Your task to perform on an android device: toggle location history Image 0: 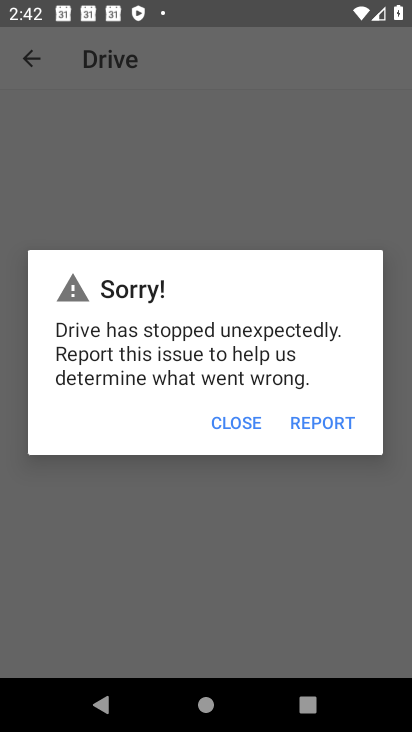
Step 0: press home button
Your task to perform on an android device: toggle location history Image 1: 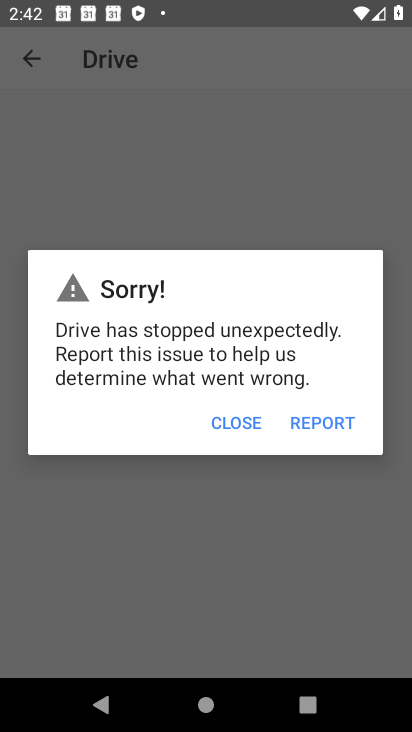
Step 1: drag from (290, 453) to (311, 275)
Your task to perform on an android device: toggle location history Image 2: 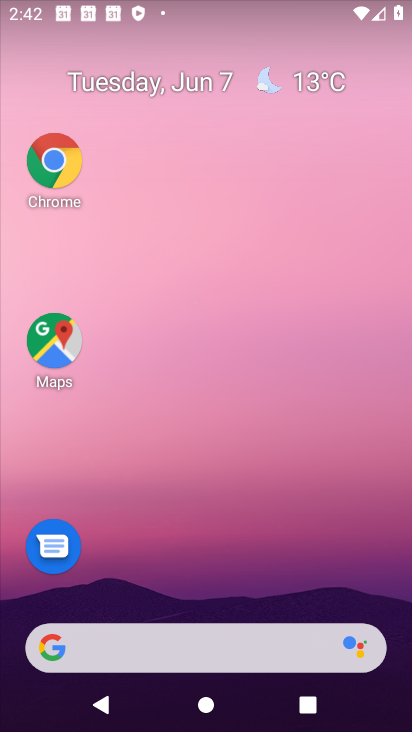
Step 2: drag from (197, 559) to (284, 113)
Your task to perform on an android device: toggle location history Image 3: 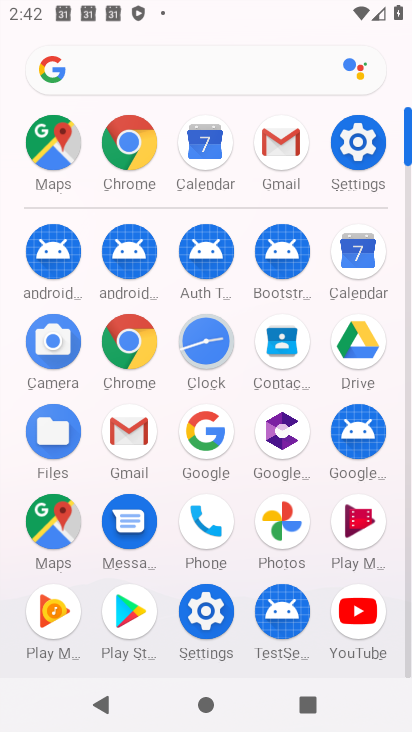
Step 3: click (354, 132)
Your task to perform on an android device: toggle location history Image 4: 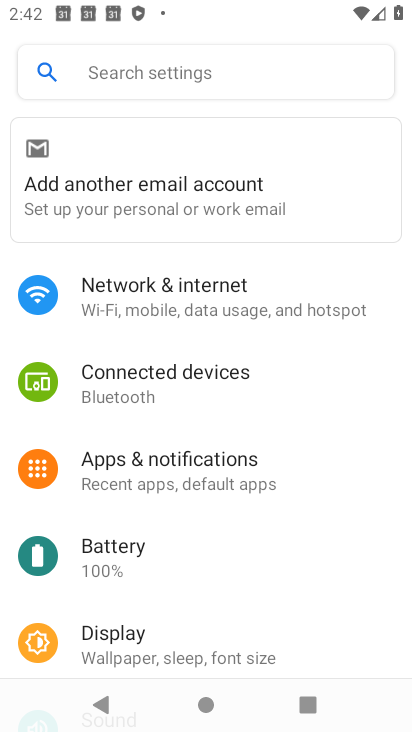
Step 4: drag from (136, 550) to (215, 255)
Your task to perform on an android device: toggle location history Image 5: 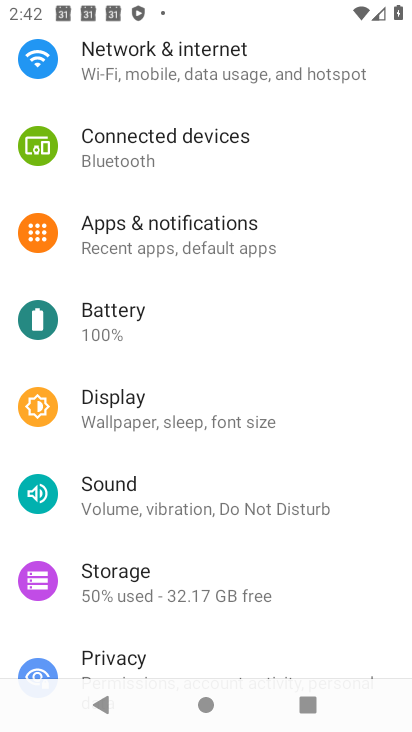
Step 5: drag from (160, 635) to (236, 255)
Your task to perform on an android device: toggle location history Image 6: 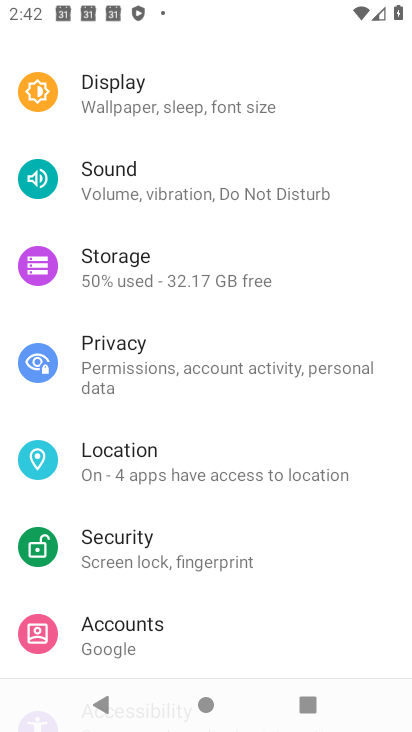
Step 6: click (134, 468)
Your task to perform on an android device: toggle location history Image 7: 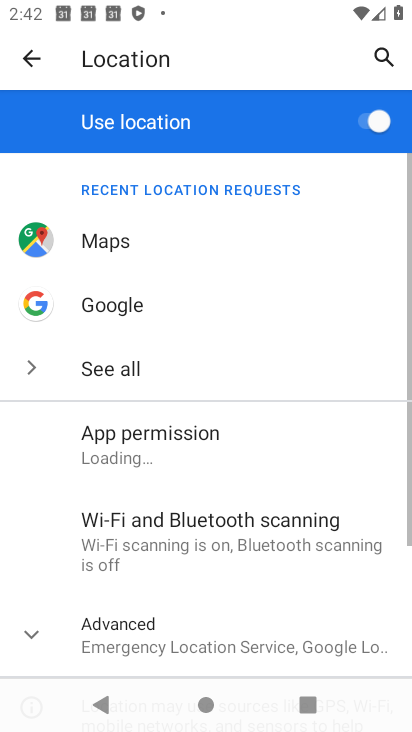
Step 7: drag from (241, 510) to (283, 294)
Your task to perform on an android device: toggle location history Image 8: 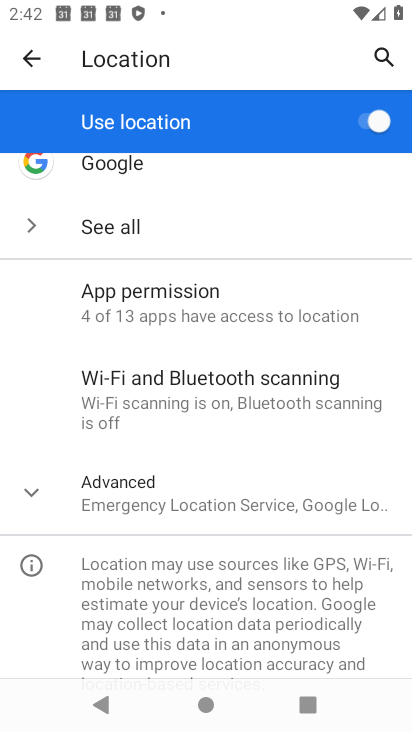
Step 8: click (137, 486)
Your task to perform on an android device: toggle location history Image 9: 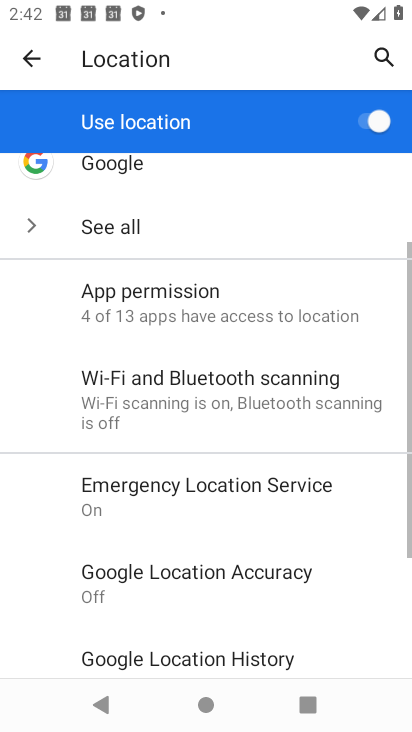
Step 9: drag from (169, 494) to (252, 209)
Your task to perform on an android device: toggle location history Image 10: 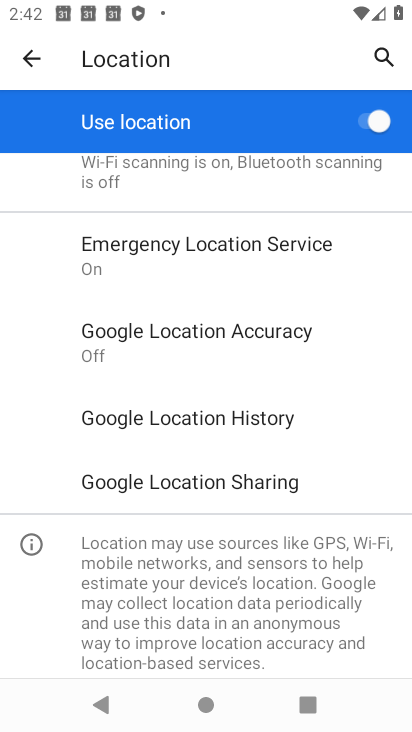
Step 10: click (198, 406)
Your task to perform on an android device: toggle location history Image 11: 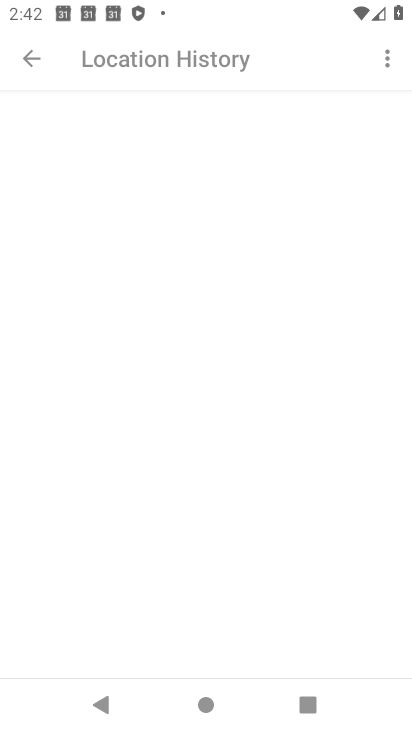
Step 11: drag from (229, 479) to (273, 310)
Your task to perform on an android device: toggle location history Image 12: 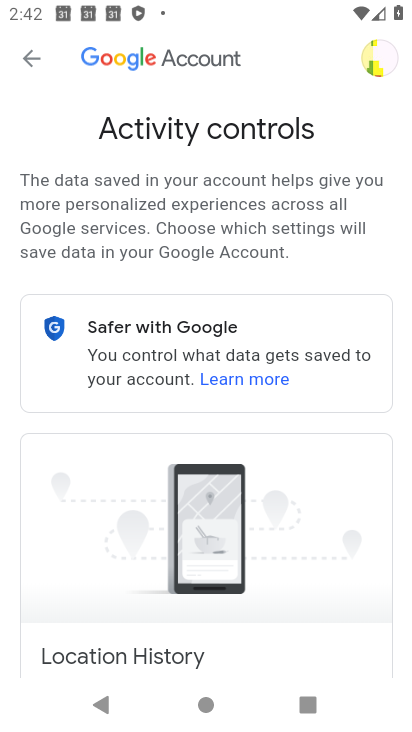
Step 12: drag from (238, 530) to (339, 67)
Your task to perform on an android device: toggle location history Image 13: 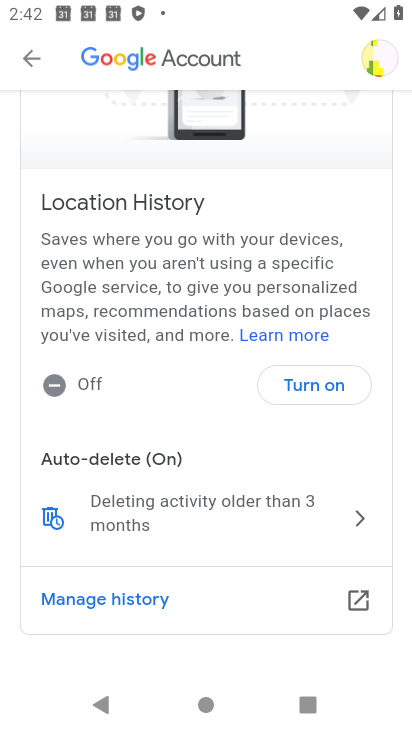
Step 13: click (303, 381)
Your task to perform on an android device: toggle location history Image 14: 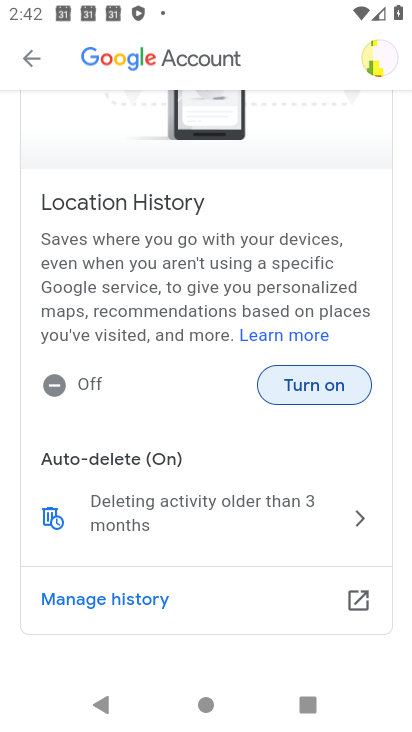
Step 14: drag from (243, 448) to (345, 147)
Your task to perform on an android device: toggle location history Image 15: 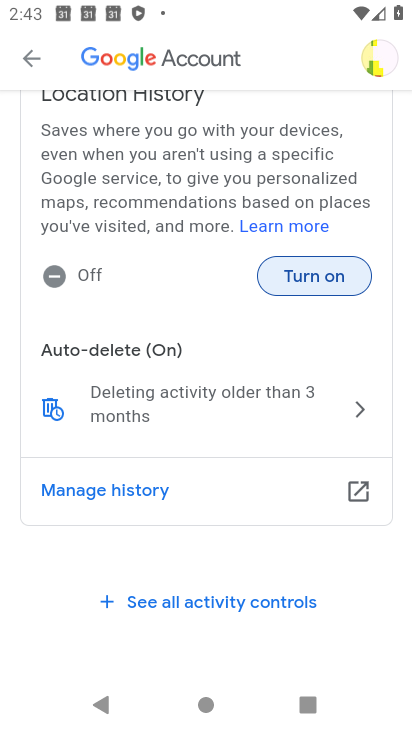
Step 15: drag from (202, 527) to (262, 232)
Your task to perform on an android device: toggle location history Image 16: 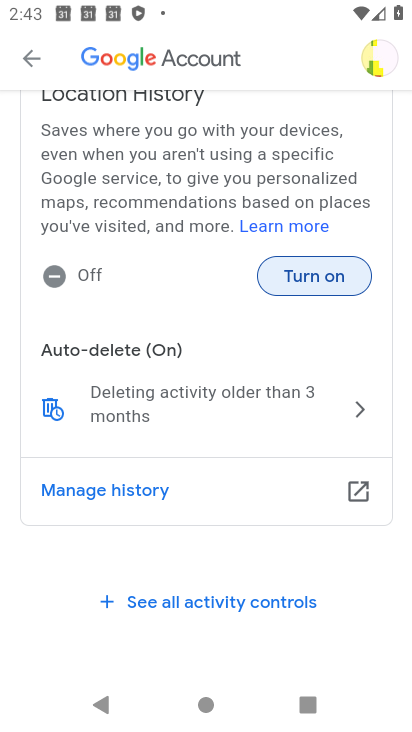
Step 16: drag from (246, 214) to (293, 730)
Your task to perform on an android device: toggle location history Image 17: 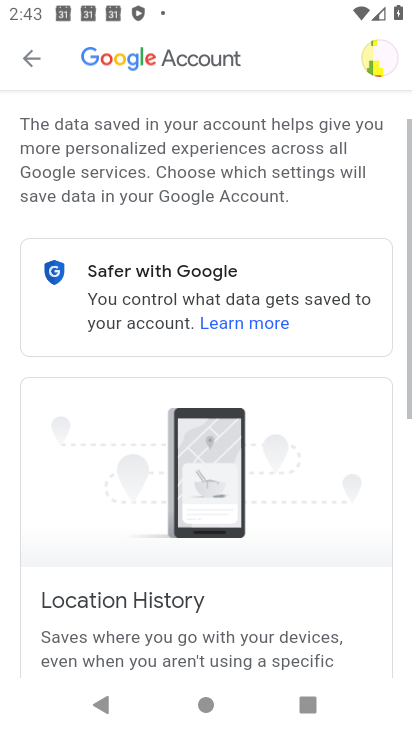
Step 17: drag from (345, 373) to (350, 205)
Your task to perform on an android device: toggle location history Image 18: 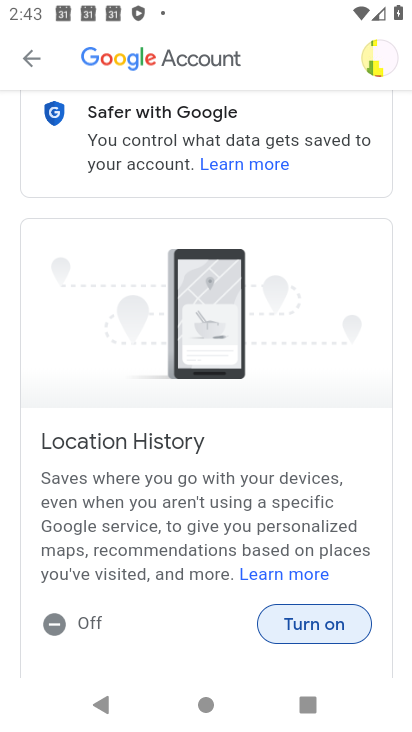
Step 18: click (322, 605)
Your task to perform on an android device: toggle location history Image 19: 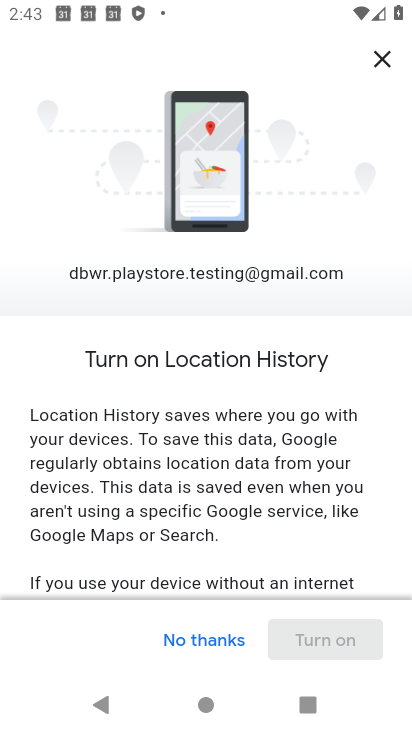
Step 19: drag from (310, 485) to (376, 65)
Your task to perform on an android device: toggle location history Image 20: 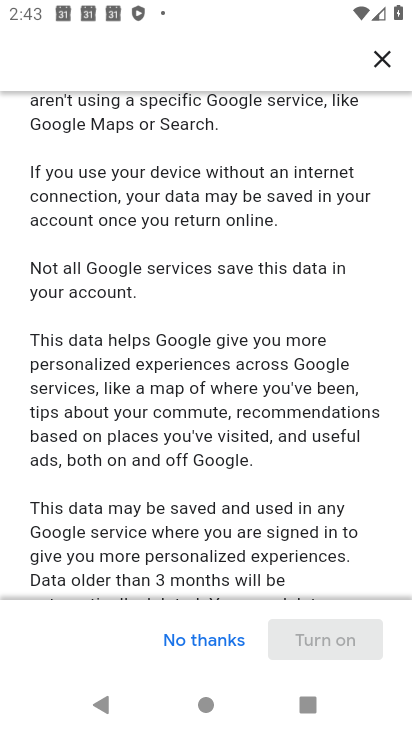
Step 20: drag from (246, 562) to (411, 66)
Your task to perform on an android device: toggle location history Image 21: 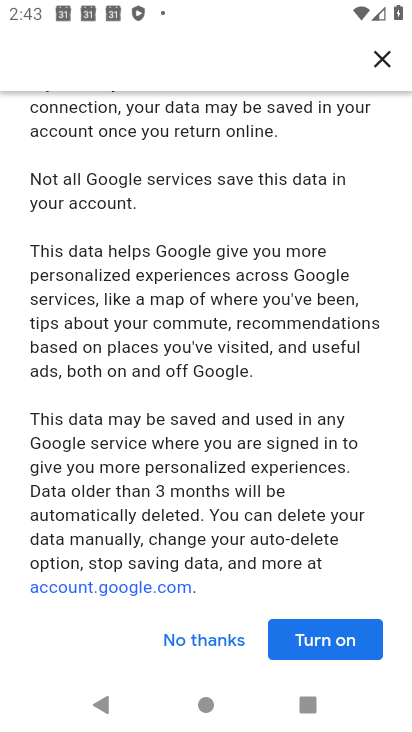
Step 21: click (299, 634)
Your task to perform on an android device: toggle location history Image 22: 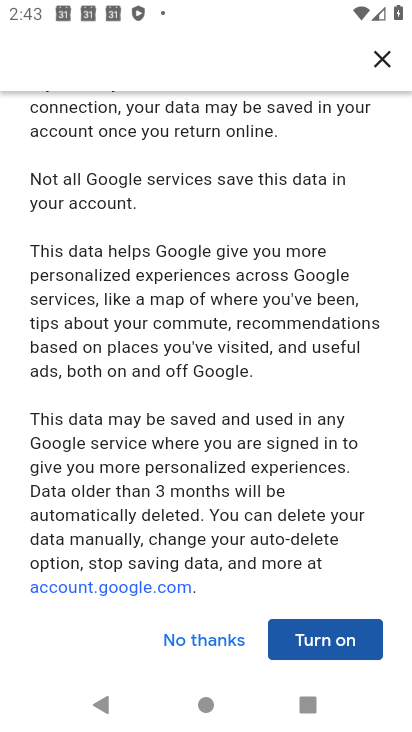
Step 22: task complete